Your task to perform on an android device: turn off picture-in-picture Image 0: 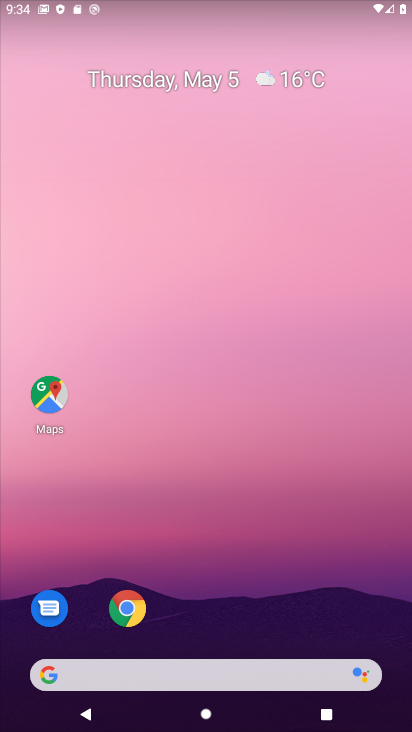
Step 0: drag from (258, 569) to (229, 90)
Your task to perform on an android device: turn off picture-in-picture Image 1: 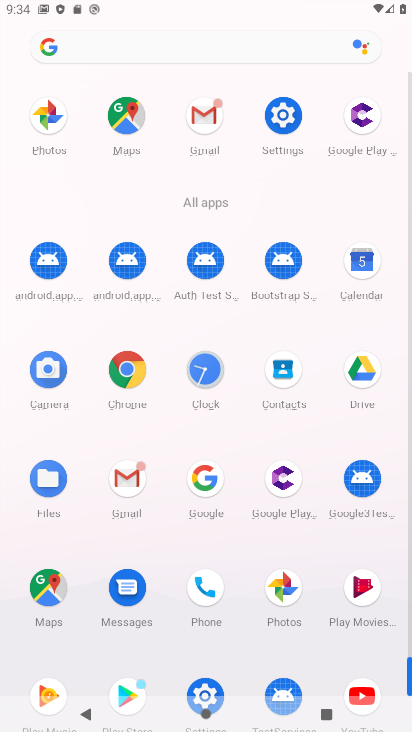
Step 1: click (129, 371)
Your task to perform on an android device: turn off picture-in-picture Image 2: 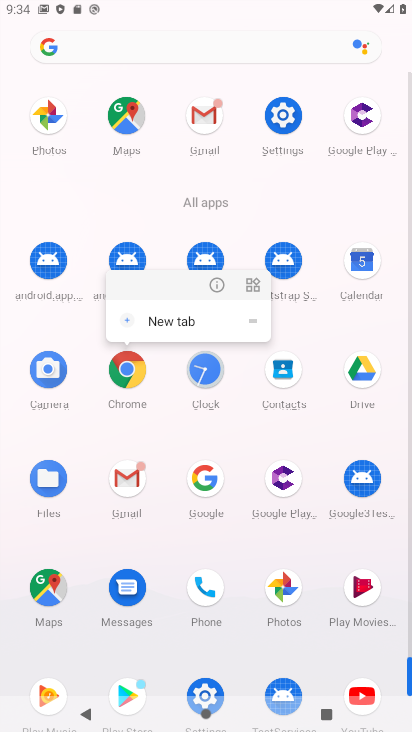
Step 2: click (214, 282)
Your task to perform on an android device: turn off picture-in-picture Image 3: 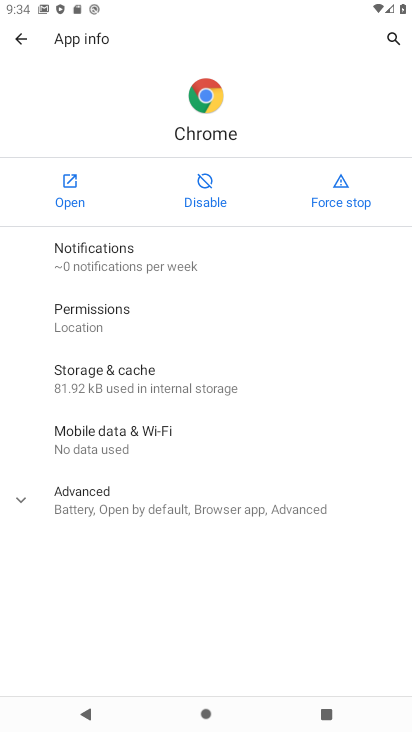
Step 3: click (113, 497)
Your task to perform on an android device: turn off picture-in-picture Image 4: 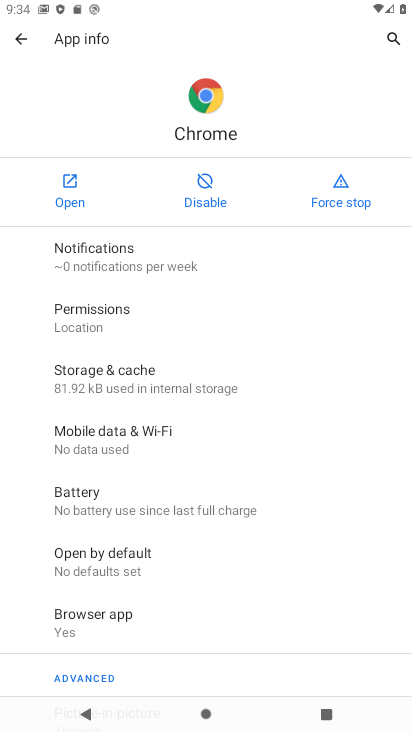
Step 4: drag from (162, 539) to (177, 231)
Your task to perform on an android device: turn off picture-in-picture Image 5: 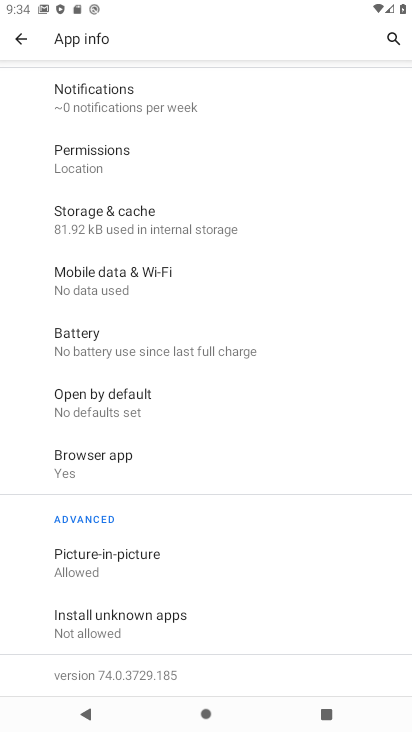
Step 5: click (102, 562)
Your task to perform on an android device: turn off picture-in-picture Image 6: 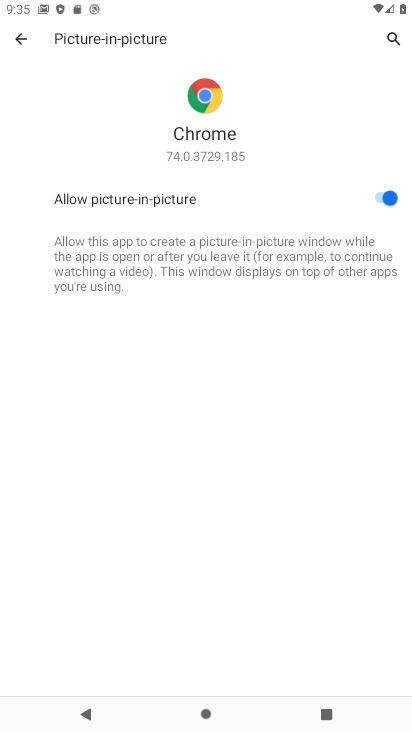
Step 6: click (389, 197)
Your task to perform on an android device: turn off picture-in-picture Image 7: 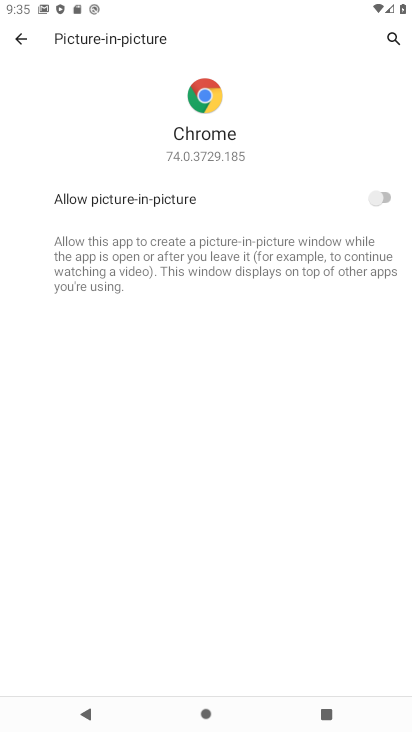
Step 7: task complete